Your task to perform on an android device: Go to Amazon Image 0: 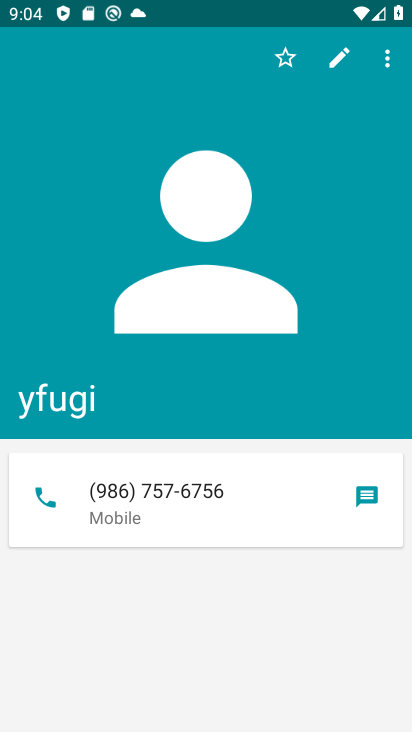
Step 0: press home button
Your task to perform on an android device: Go to Amazon Image 1: 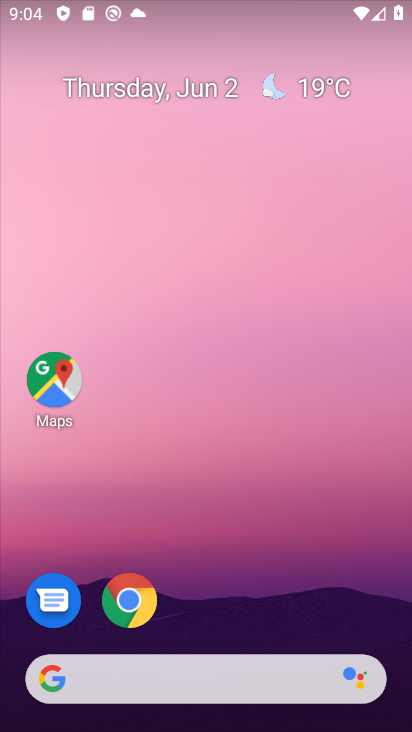
Step 1: click (146, 601)
Your task to perform on an android device: Go to Amazon Image 2: 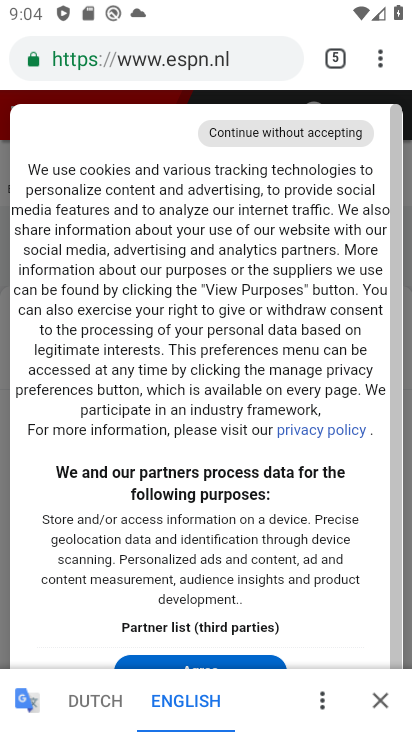
Step 2: click (335, 67)
Your task to perform on an android device: Go to Amazon Image 3: 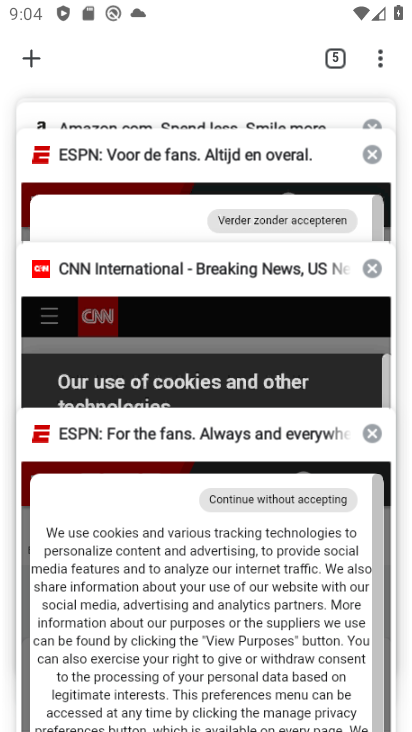
Step 3: drag from (203, 281) to (203, 387)
Your task to perform on an android device: Go to Amazon Image 4: 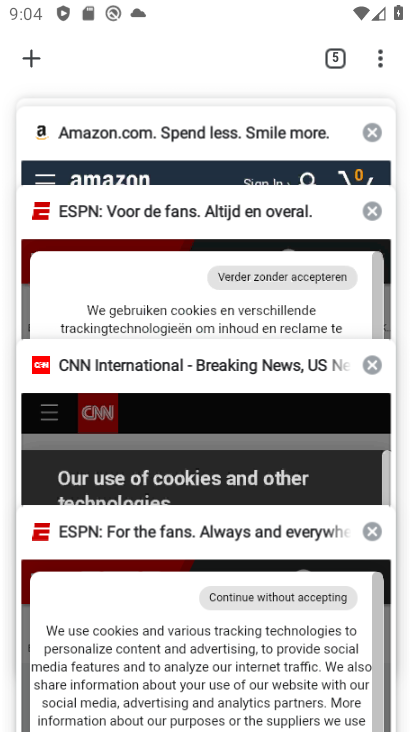
Step 4: drag from (188, 187) to (183, 467)
Your task to perform on an android device: Go to Amazon Image 5: 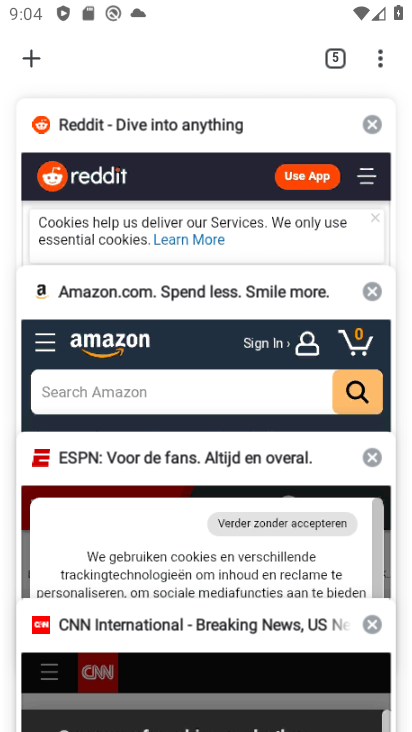
Step 5: click (156, 349)
Your task to perform on an android device: Go to Amazon Image 6: 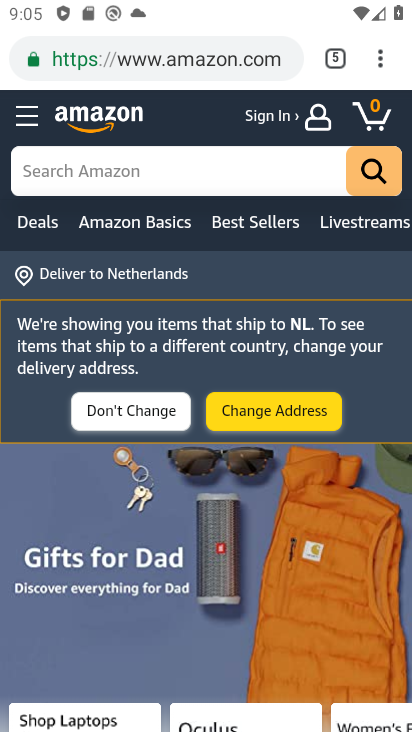
Step 6: task complete